Your task to perform on an android device: turn on bluetooth scan Image 0: 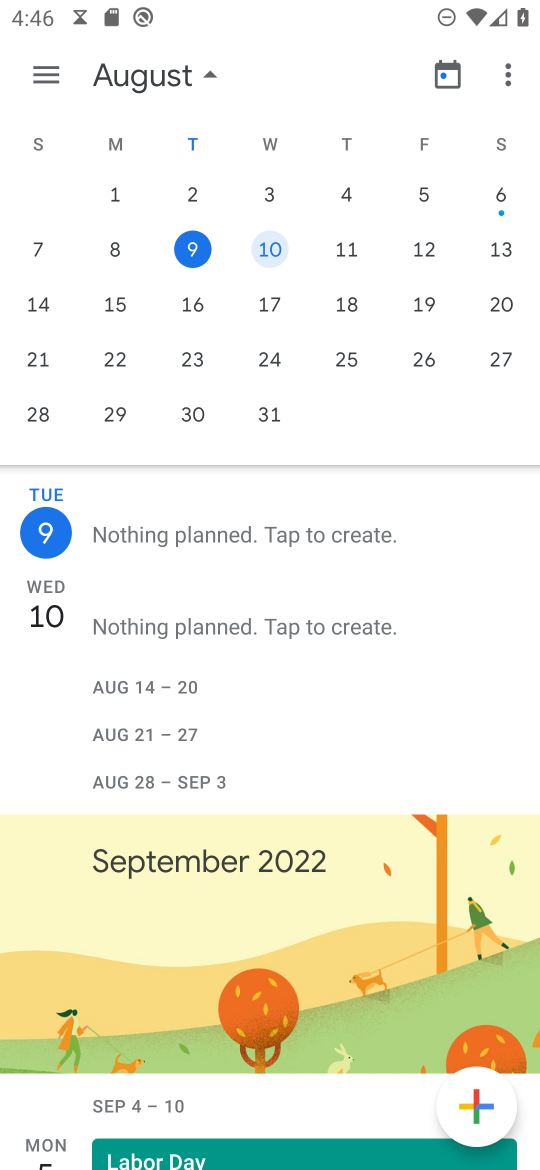
Step 0: press home button
Your task to perform on an android device: turn on bluetooth scan Image 1: 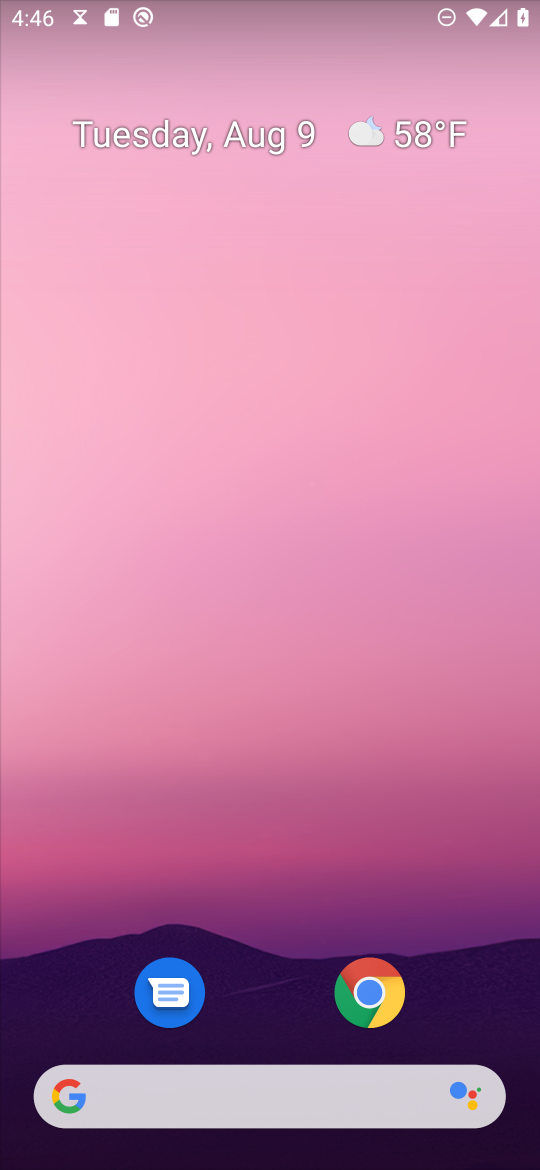
Step 1: drag from (262, 1087) to (262, 136)
Your task to perform on an android device: turn on bluetooth scan Image 2: 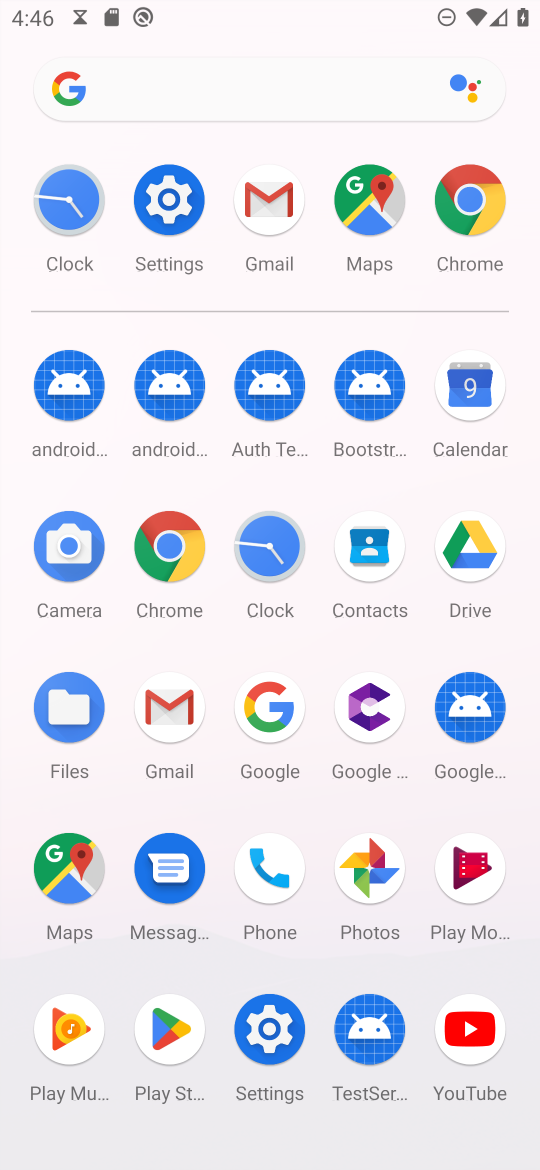
Step 2: click (176, 184)
Your task to perform on an android device: turn on bluetooth scan Image 3: 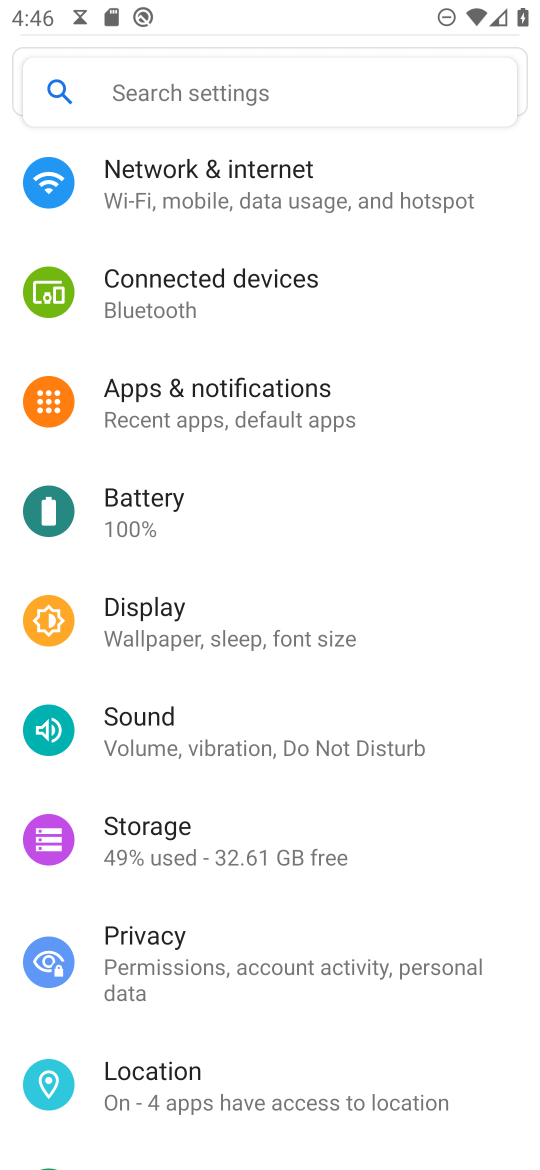
Step 3: click (270, 1089)
Your task to perform on an android device: turn on bluetooth scan Image 4: 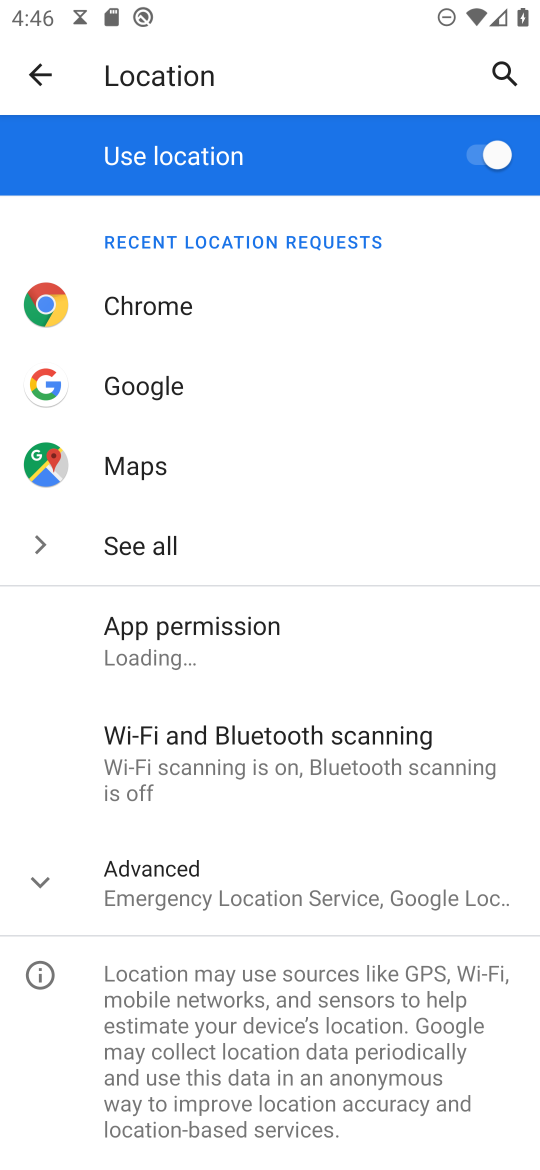
Step 4: click (333, 762)
Your task to perform on an android device: turn on bluetooth scan Image 5: 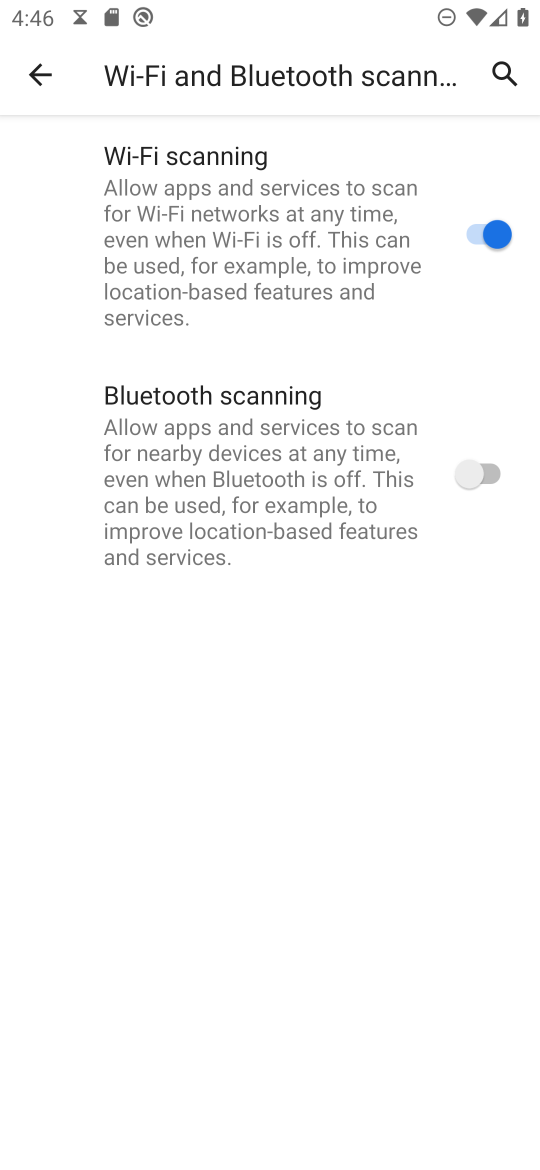
Step 5: click (497, 460)
Your task to perform on an android device: turn on bluetooth scan Image 6: 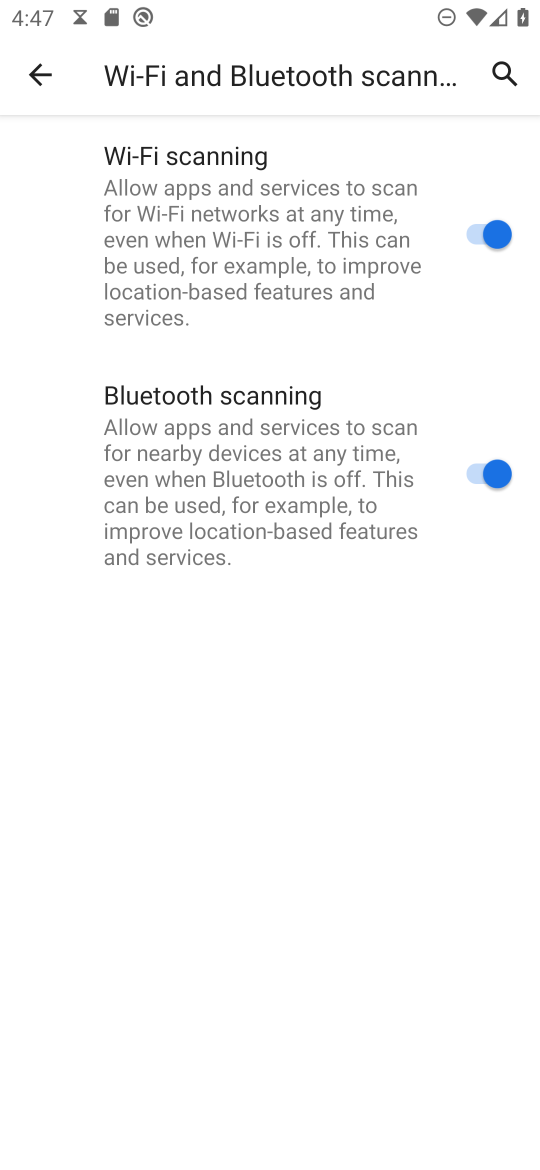
Step 6: task complete